Your task to perform on an android device: turn off data saver in the chrome app Image 0: 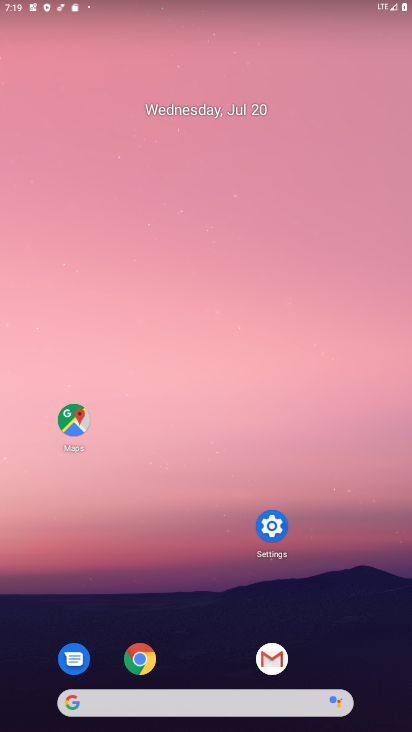
Step 0: click (145, 663)
Your task to perform on an android device: turn off data saver in the chrome app Image 1: 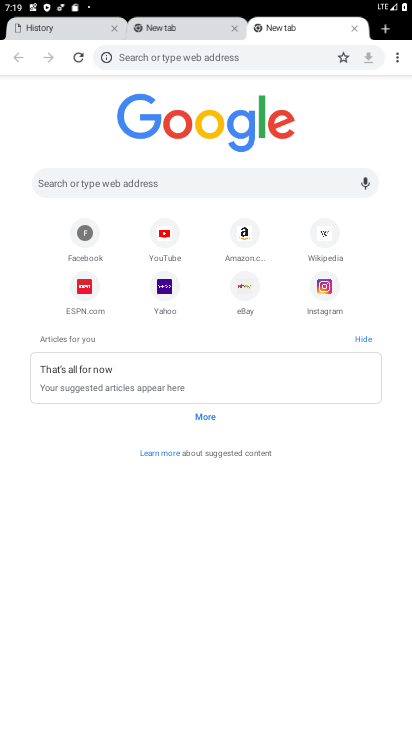
Step 1: click (395, 67)
Your task to perform on an android device: turn off data saver in the chrome app Image 2: 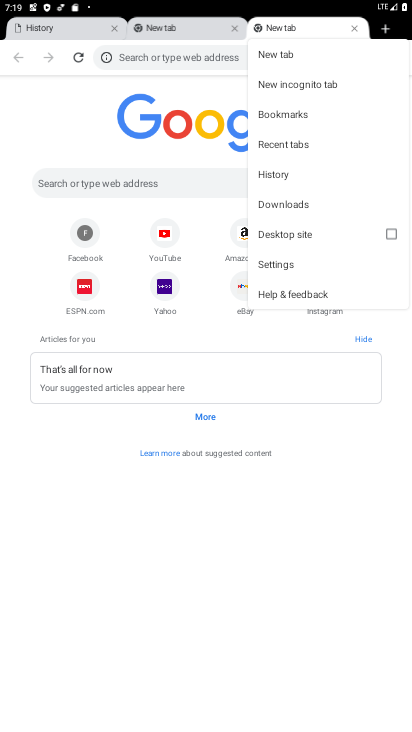
Step 2: click (271, 270)
Your task to perform on an android device: turn off data saver in the chrome app Image 3: 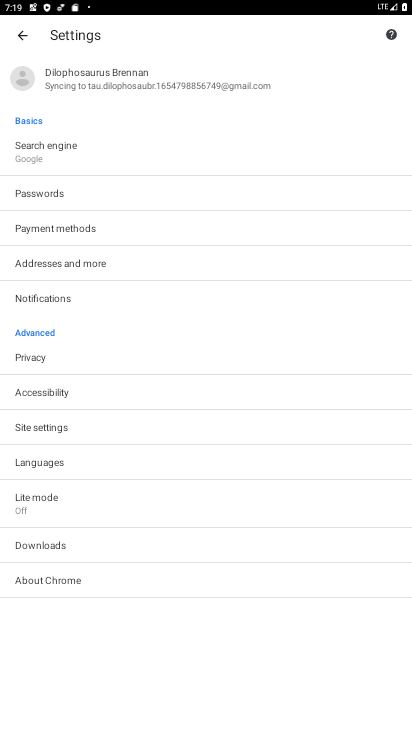
Step 3: click (61, 493)
Your task to perform on an android device: turn off data saver in the chrome app Image 4: 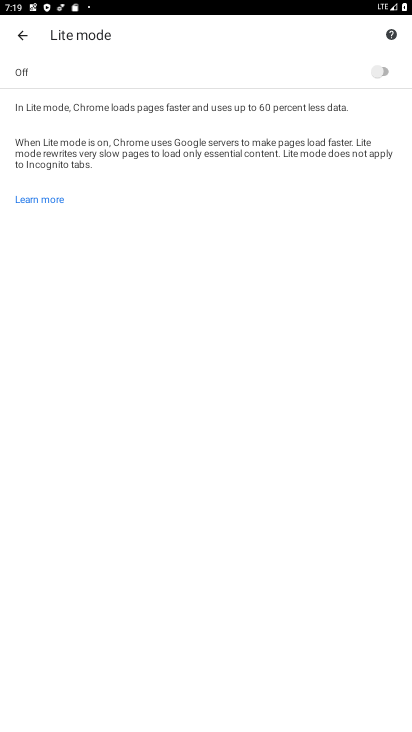
Step 4: click (374, 65)
Your task to perform on an android device: turn off data saver in the chrome app Image 5: 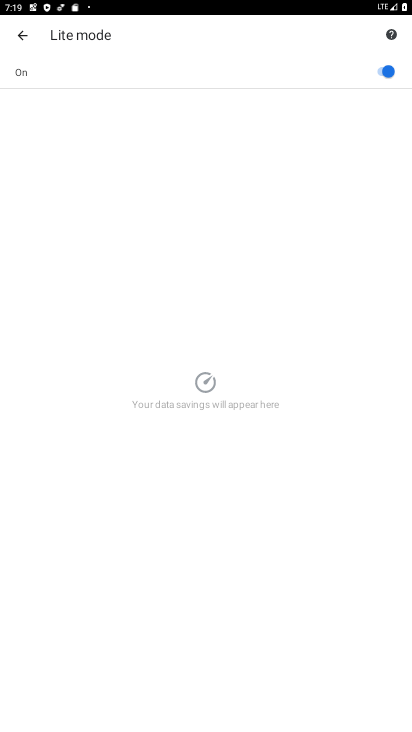
Step 5: click (374, 65)
Your task to perform on an android device: turn off data saver in the chrome app Image 6: 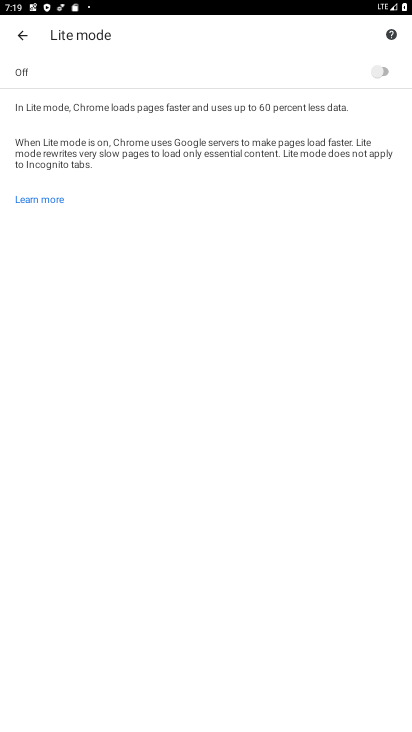
Step 6: task complete